Your task to perform on an android device: Go to calendar. Show me events next week Image 0: 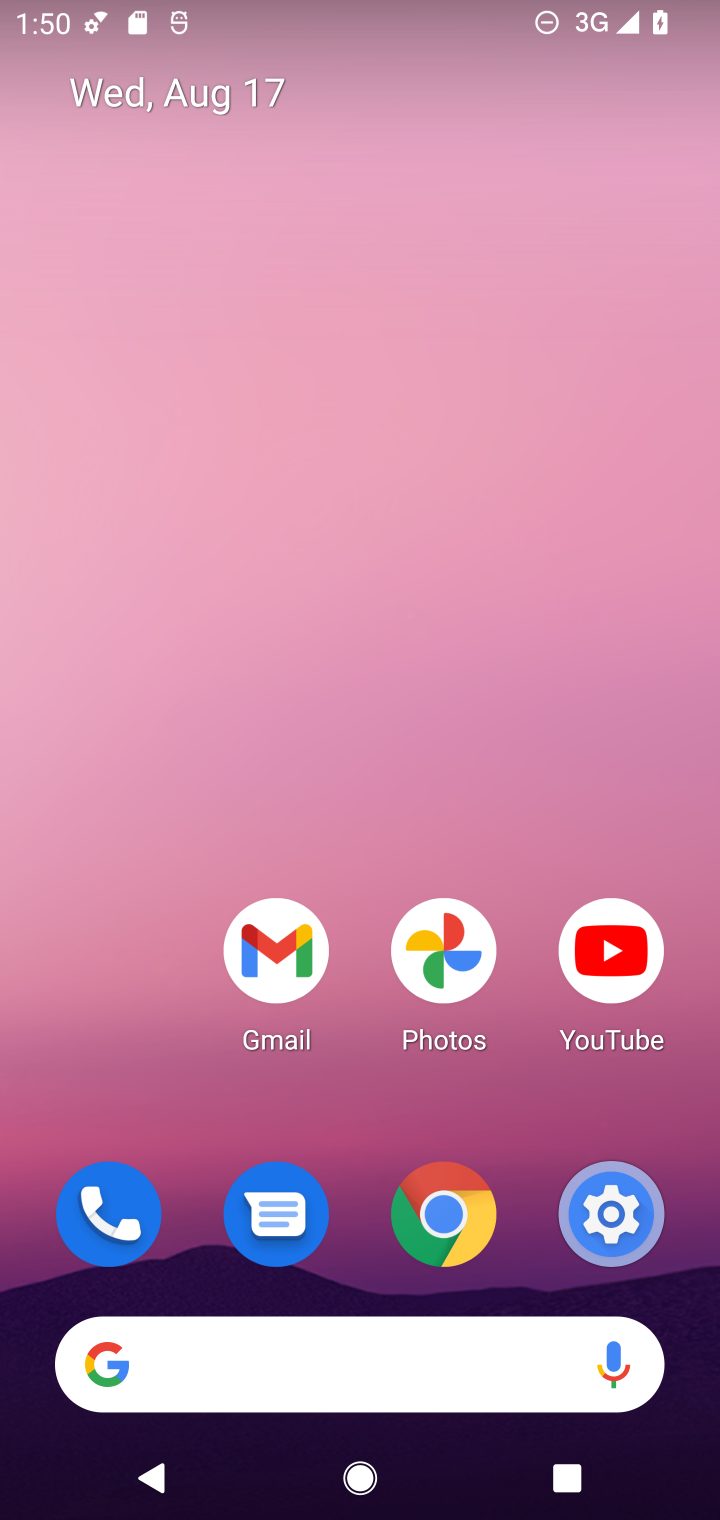
Step 0: drag from (374, 1247) to (253, 222)
Your task to perform on an android device: Go to calendar. Show me events next week Image 1: 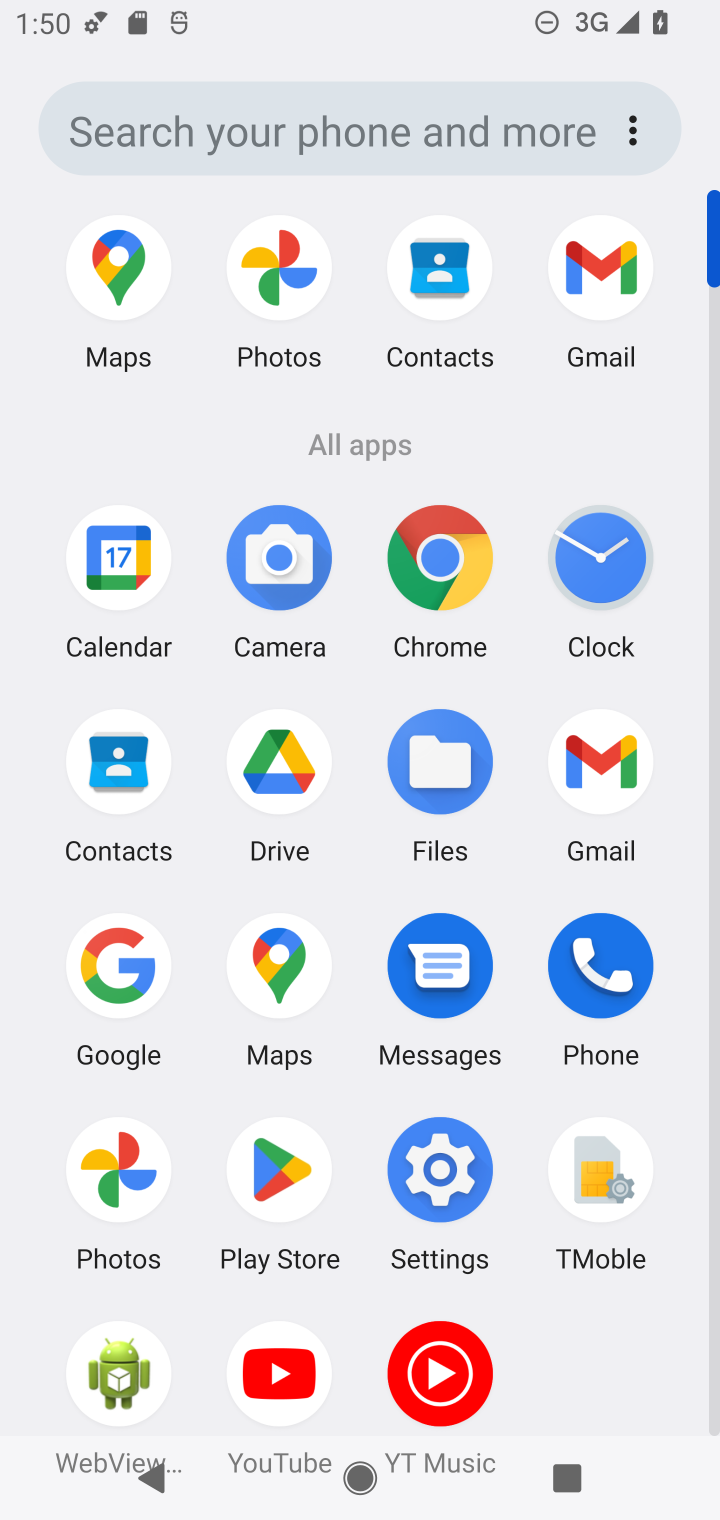
Step 1: click (124, 547)
Your task to perform on an android device: Go to calendar. Show me events next week Image 2: 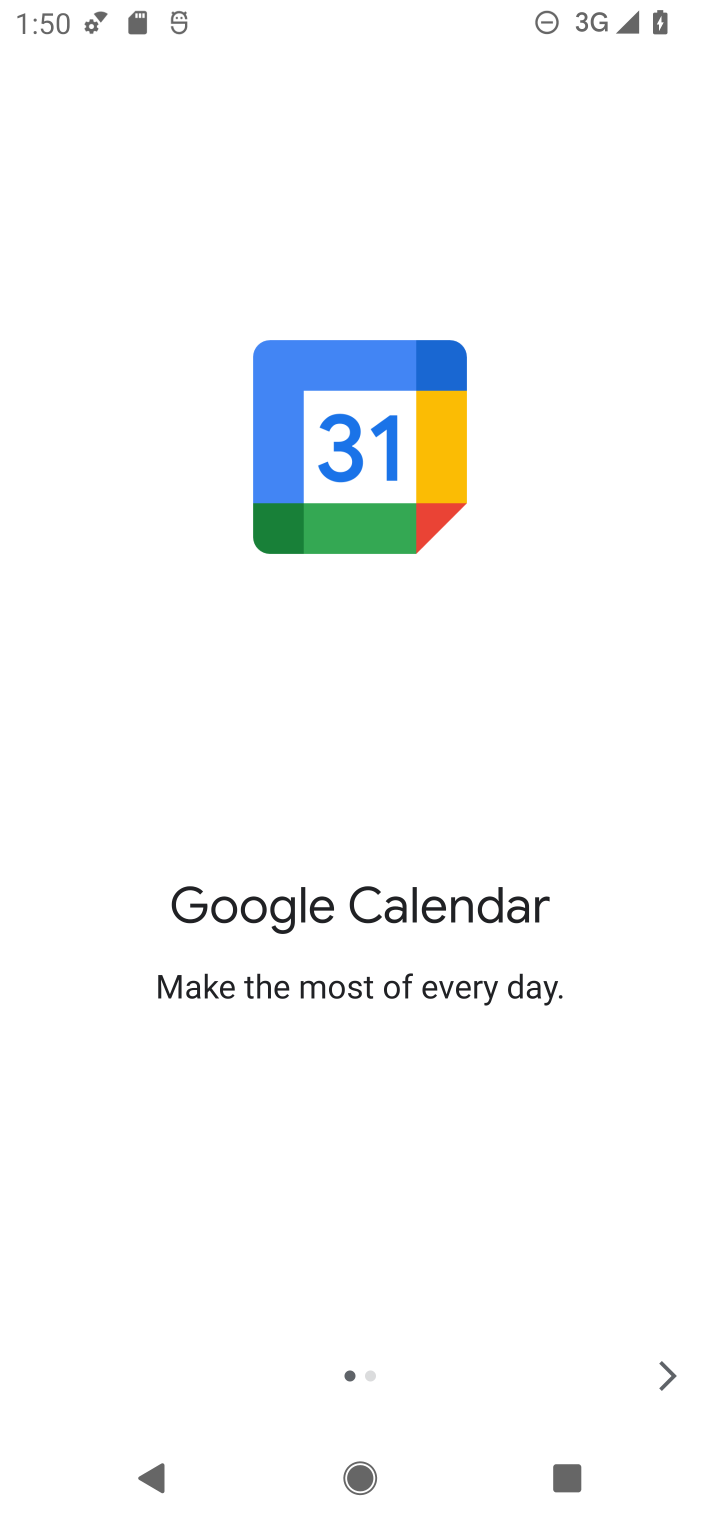
Step 2: click (661, 1371)
Your task to perform on an android device: Go to calendar. Show me events next week Image 3: 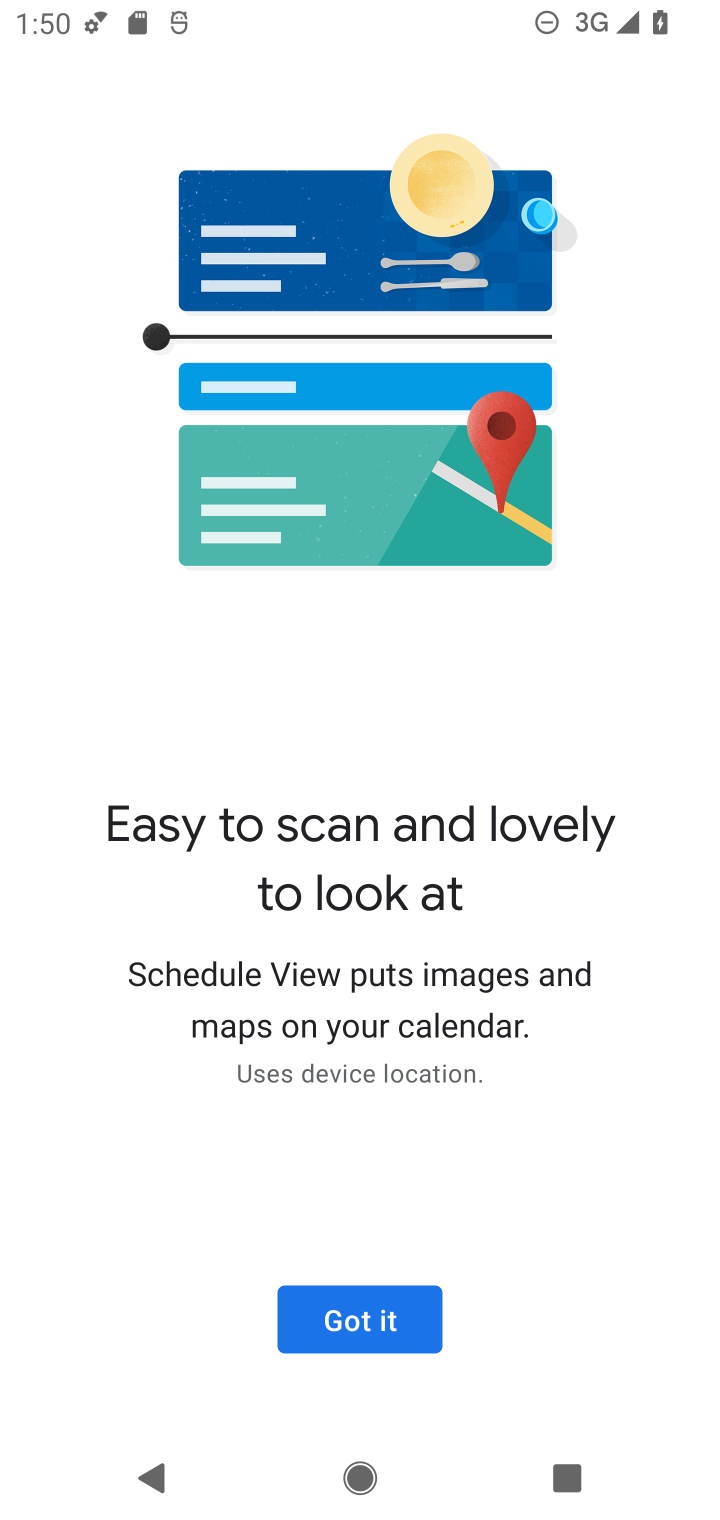
Step 3: click (340, 1298)
Your task to perform on an android device: Go to calendar. Show me events next week Image 4: 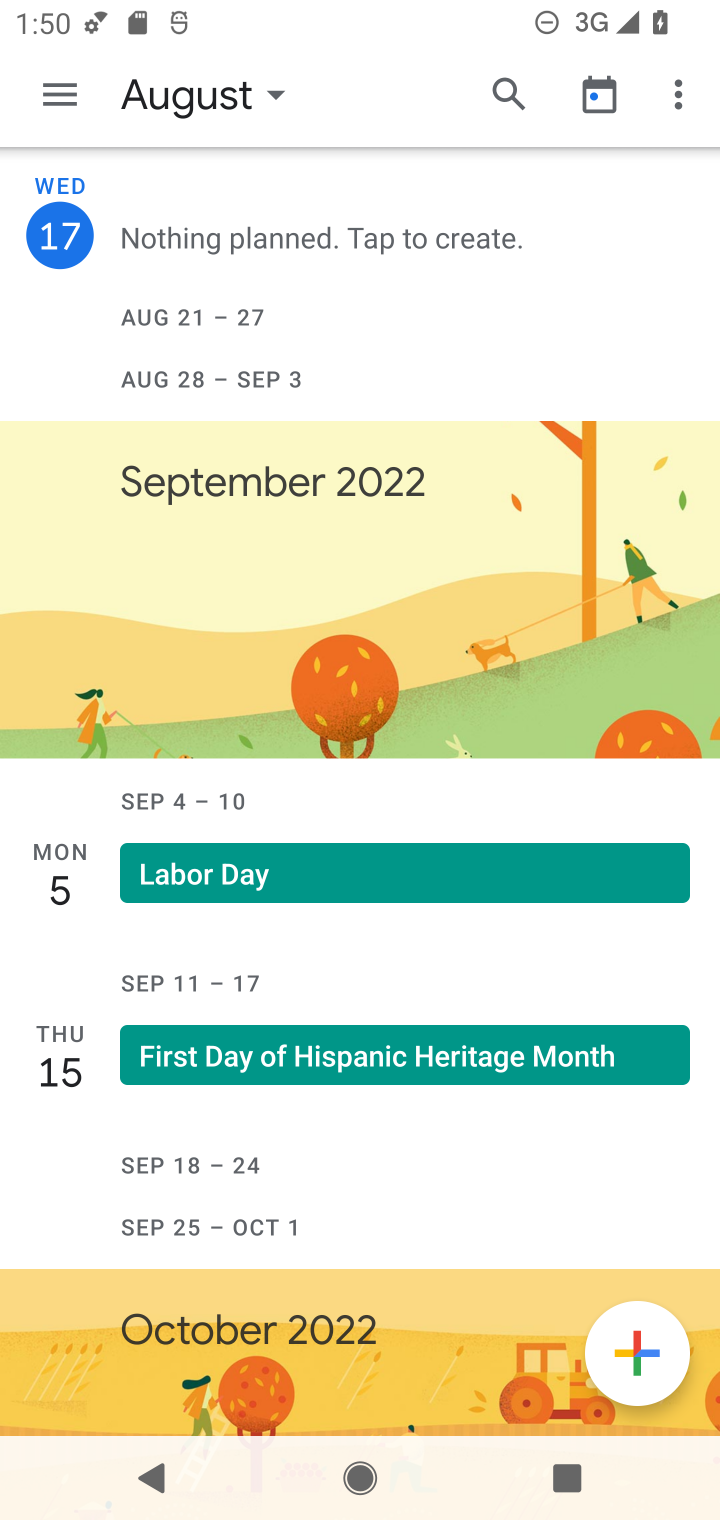
Step 4: click (63, 92)
Your task to perform on an android device: Go to calendar. Show me events next week Image 5: 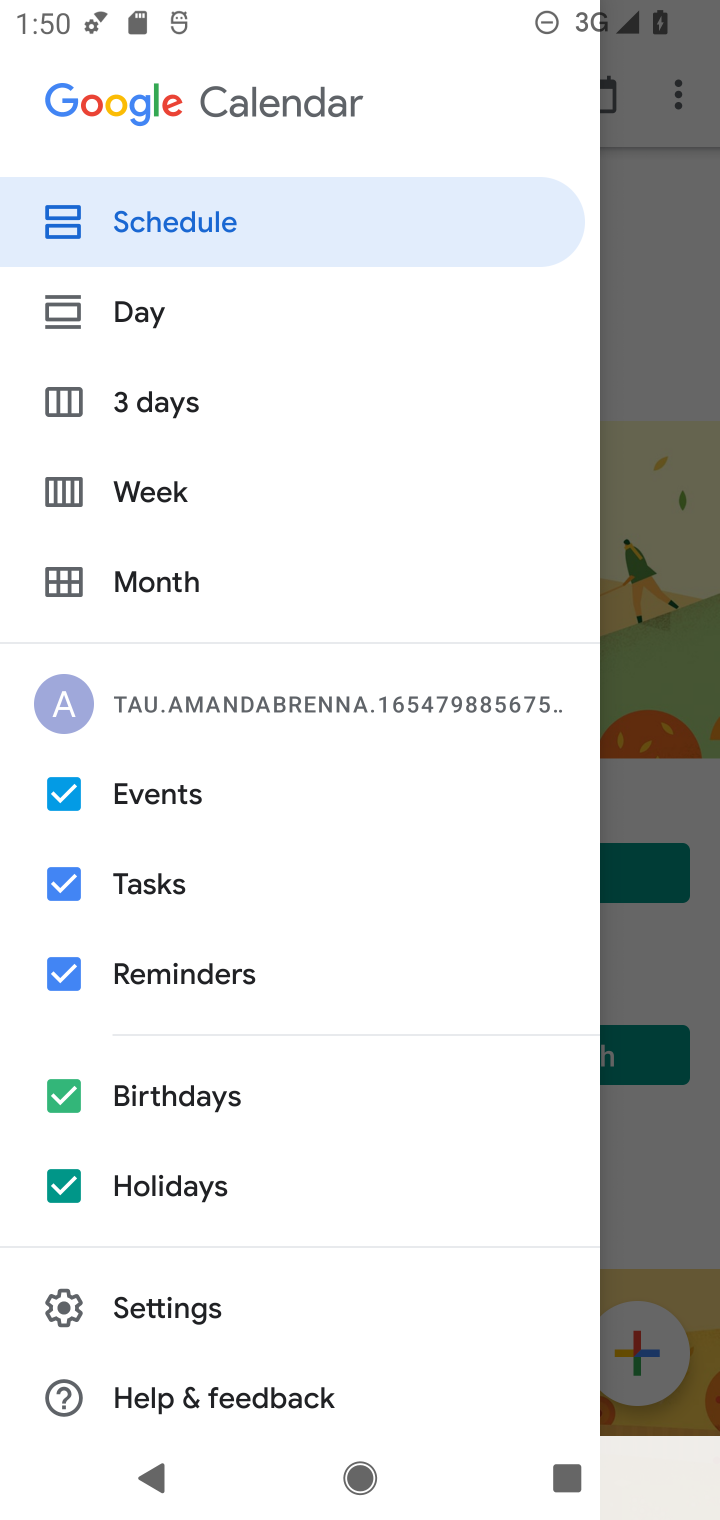
Step 5: click (152, 485)
Your task to perform on an android device: Go to calendar. Show me events next week Image 6: 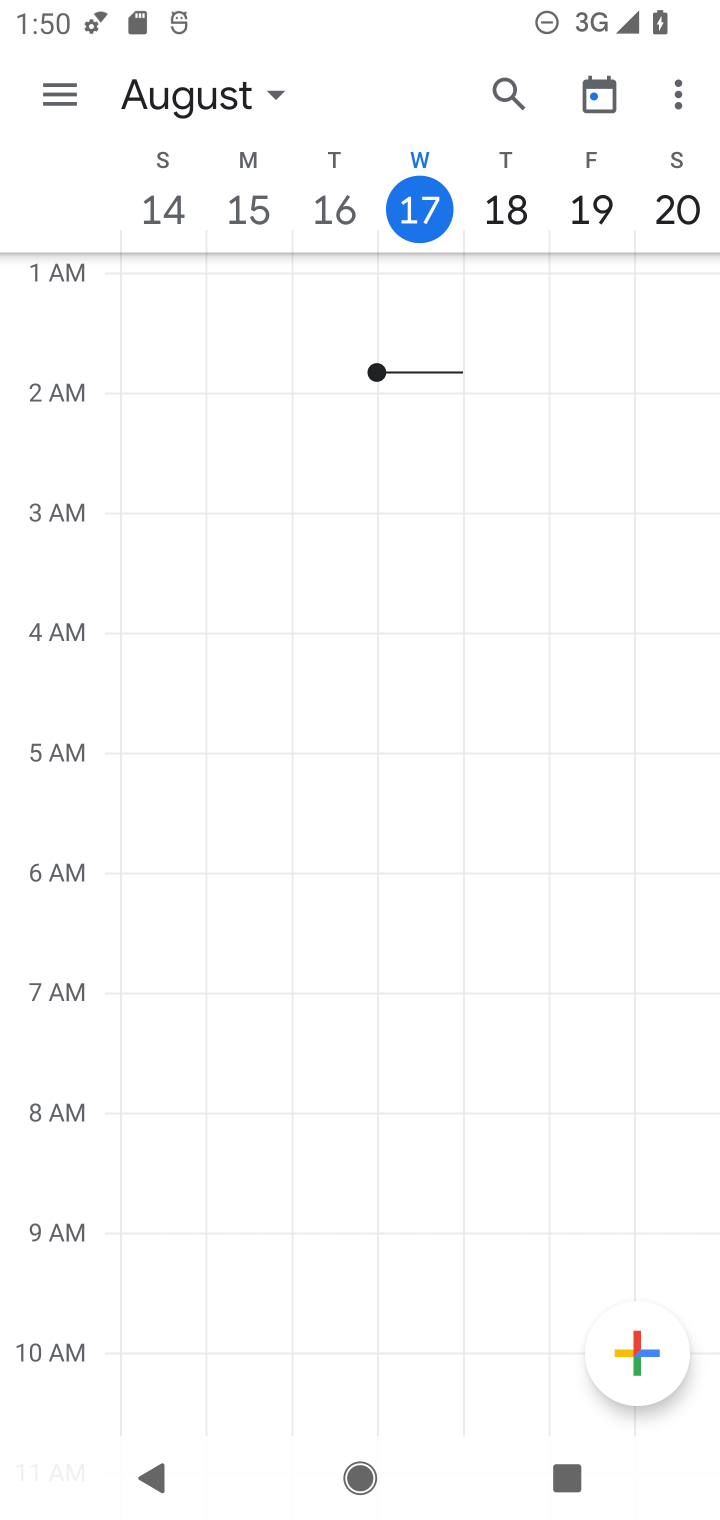
Step 6: click (275, 91)
Your task to perform on an android device: Go to calendar. Show me events next week Image 7: 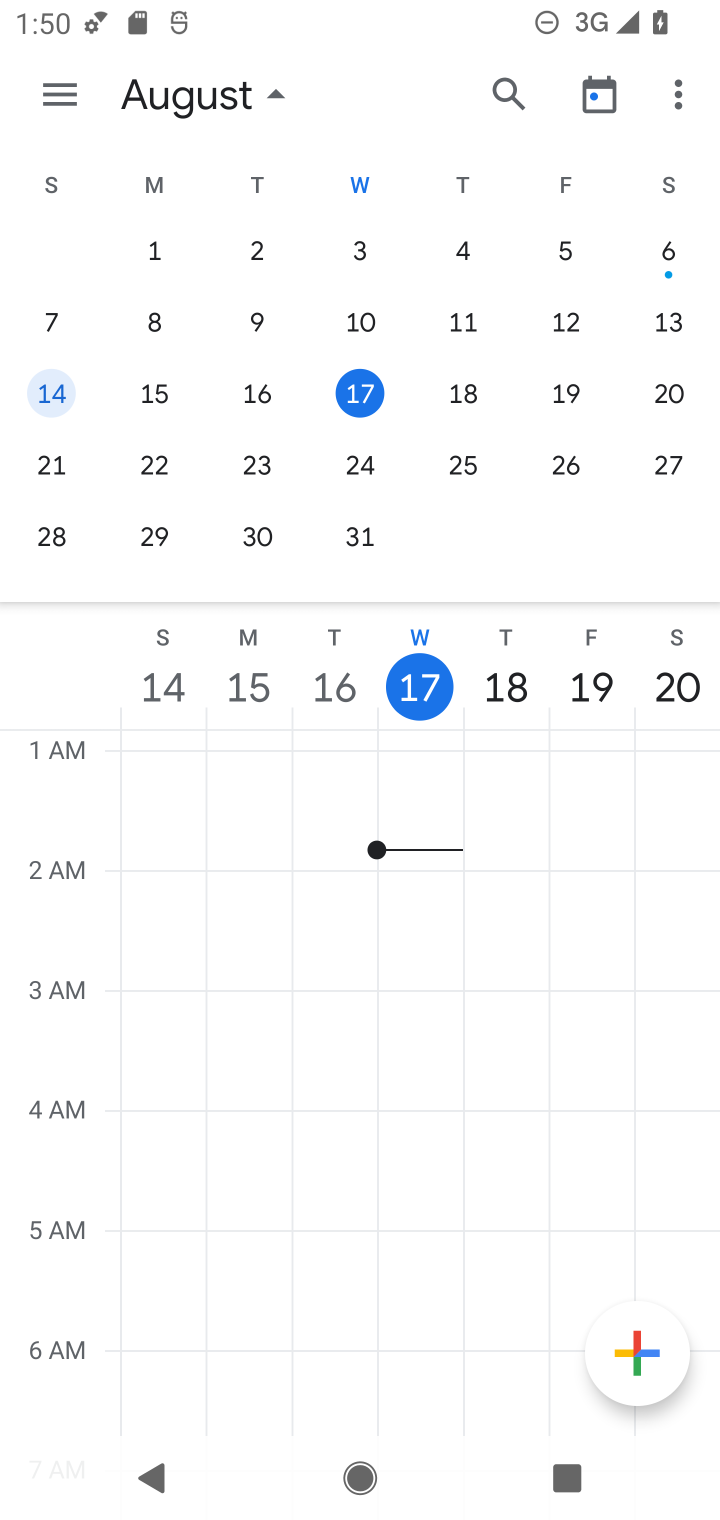
Step 7: click (363, 464)
Your task to perform on an android device: Go to calendar. Show me events next week Image 8: 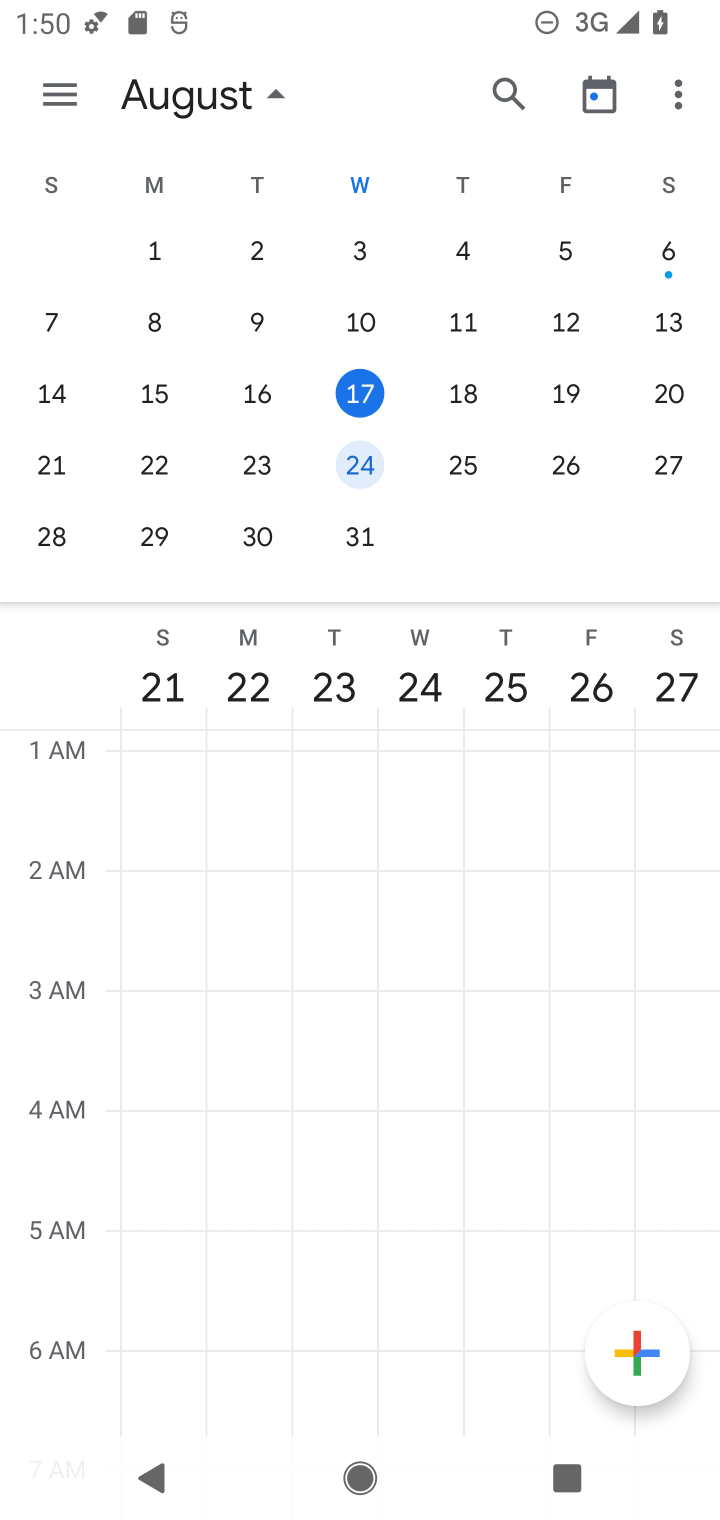
Step 8: task complete